Your task to perform on an android device: Open settings on Google Maps Image 0: 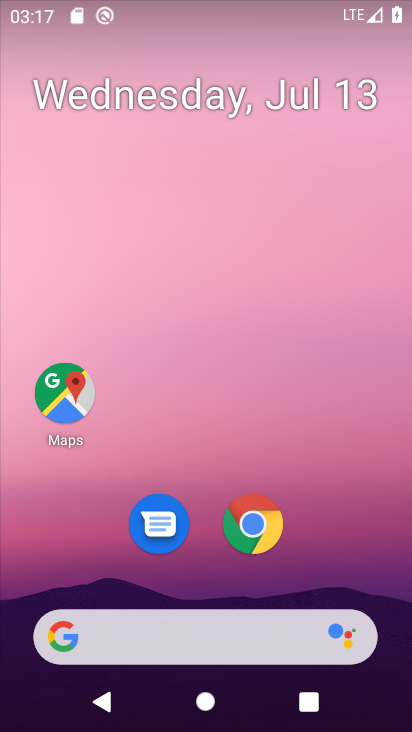
Step 0: click (77, 395)
Your task to perform on an android device: Open settings on Google Maps Image 1: 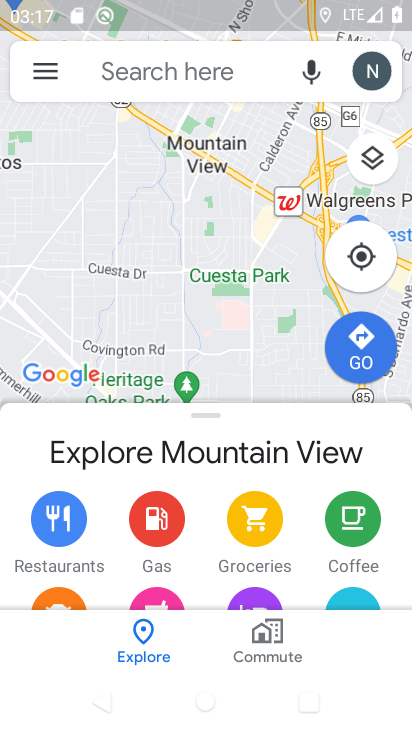
Step 1: click (41, 65)
Your task to perform on an android device: Open settings on Google Maps Image 2: 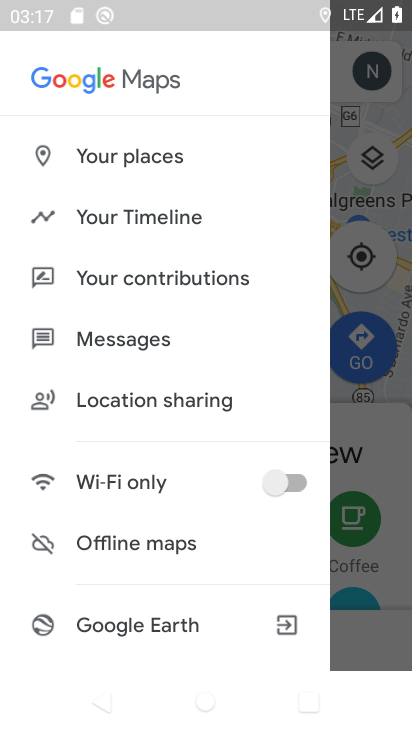
Step 2: drag from (151, 563) to (161, 123)
Your task to perform on an android device: Open settings on Google Maps Image 3: 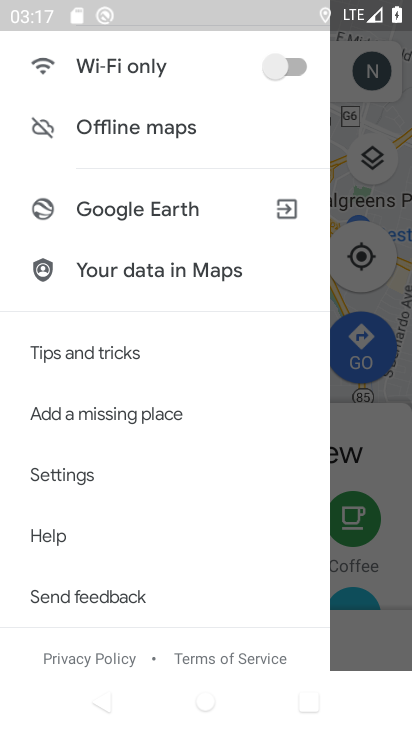
Step 3: click (84, 469)
Your task to perform on an android device: Open settings on Google Maps Image 4: 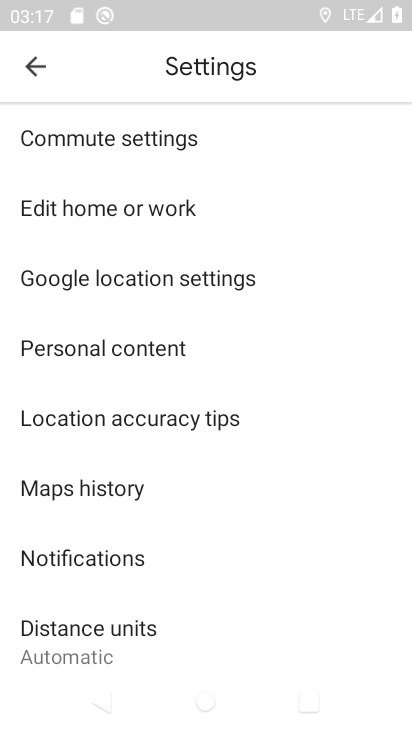
Step 4: task complete